Your task to perform on an android device: visit the assistant section in the google photos Image 0: 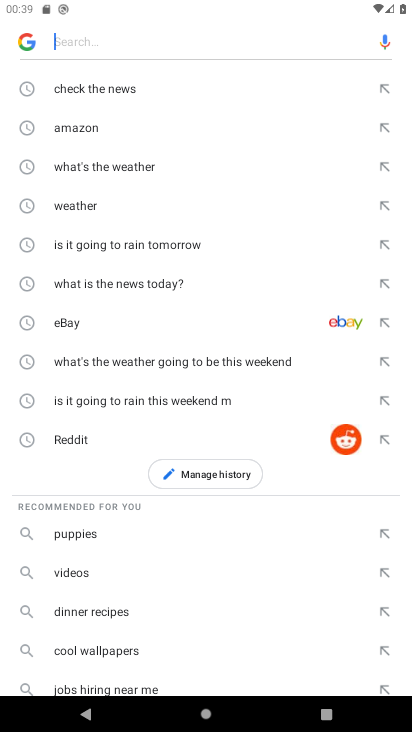
Step 0: press home button
Your task to perform on an android device: visit the assistant section in the google photos Image 1: 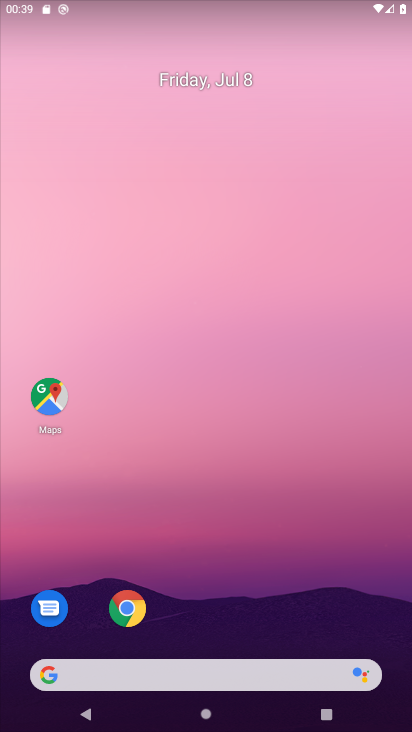
Step 1: drag from (193, 643) to (218, 532)
Your task to perform on an android device: visit the assistant section in the google photos Image 2: 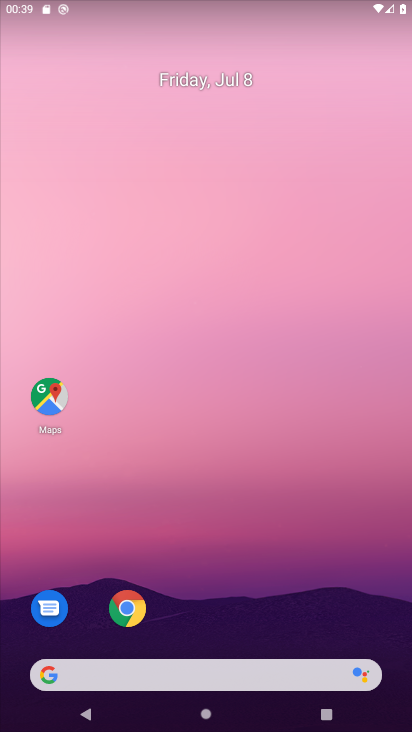
Step 2: drag from (168, 646) to (172, 483)
Your task to perform on an android device: visit the assistant section in the google photos Image 3: 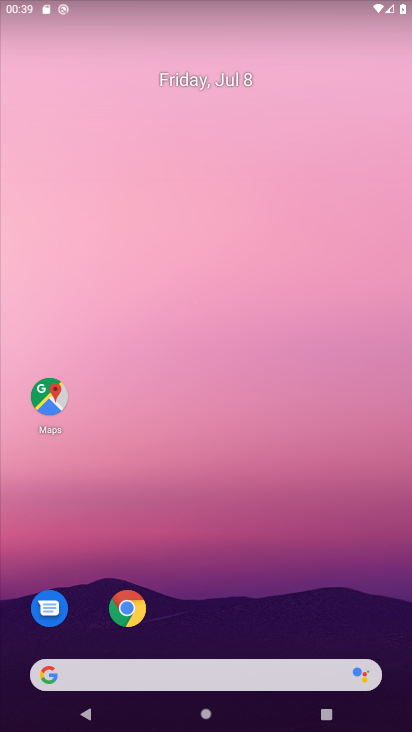
Step 3: drag from (231, 532) to (255, 203)
Your task to perform on an android device: visit the assistant section in the google photos Image 4: 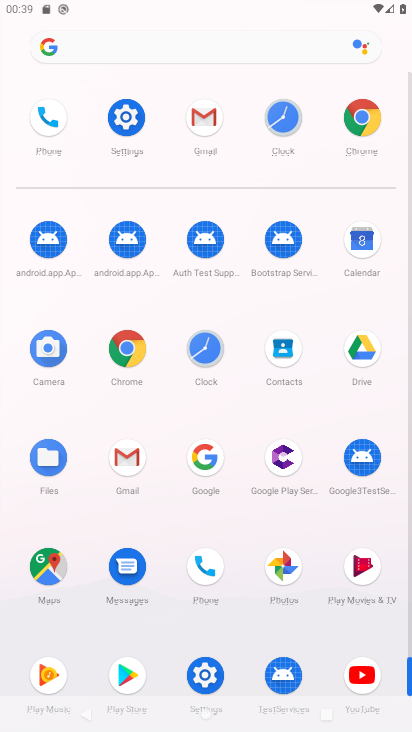
Step 4: click (286, 570)
Your task to perform on an android device: visit the assistant section in the google photos Image 5: 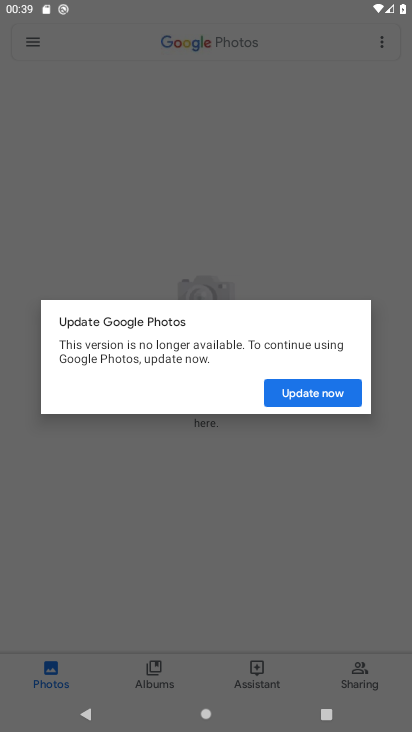
Step 5: click (304, 396)
Your task to perform on an android device: visit the assistant section in the google photos Image 6: 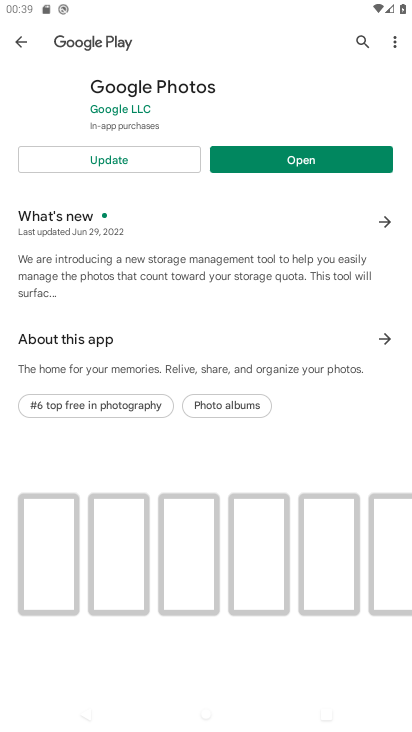
Step 6: press home button
Your task to perform on an android device: visit the assistant section in the google photos Image 7: 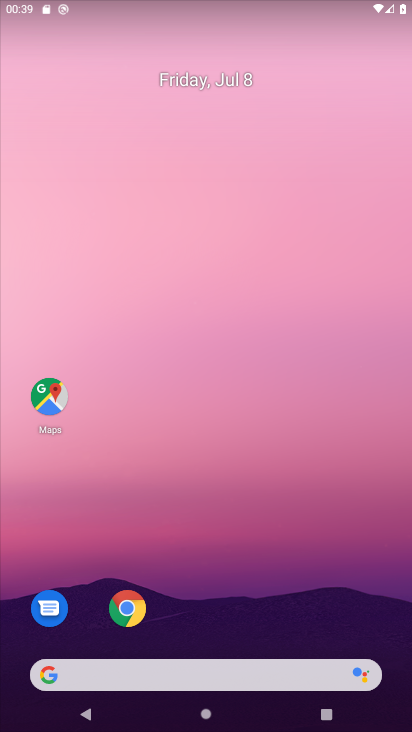
Step 7: click (221, 638)
Your task to perform on an android device: visit the assistant section in the google photos Image 8: 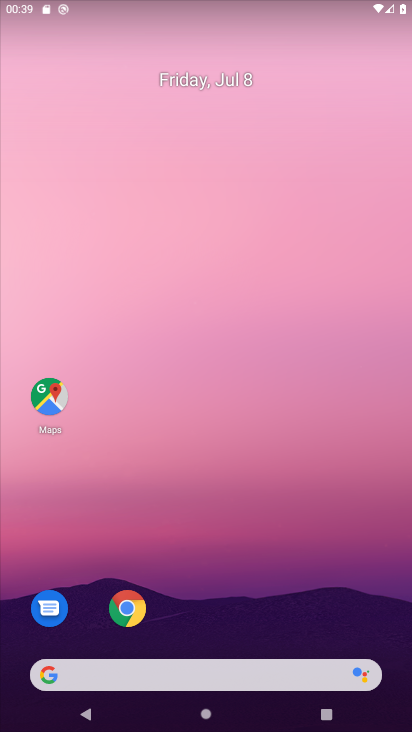
Step 8: drag from (240, 605) to (288, 299)
Your task to perform on an android device: visit the assistant section in the google photos Image 9: 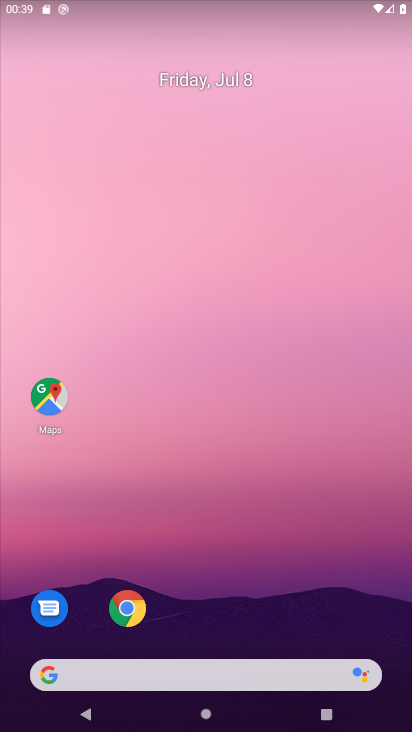
Step 9: drag from (238, 595) to (232, 112)
Your task to perform on an android device: visit the assistant section in the google photos Image 10: 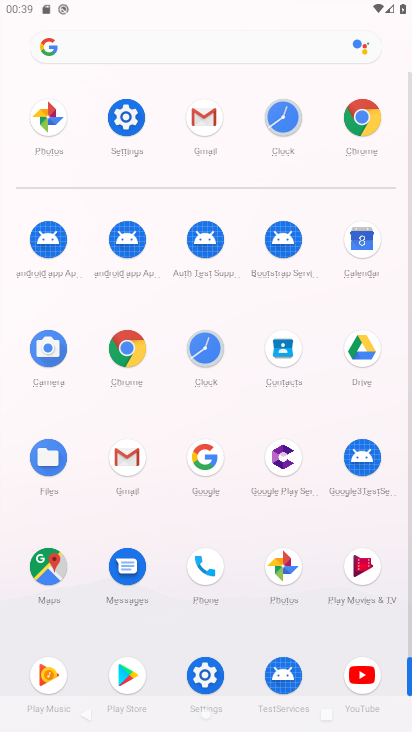
Step 10: click (272, 564)
Your task to perform on an android device: visit the assistant section in the google photos Image 11: 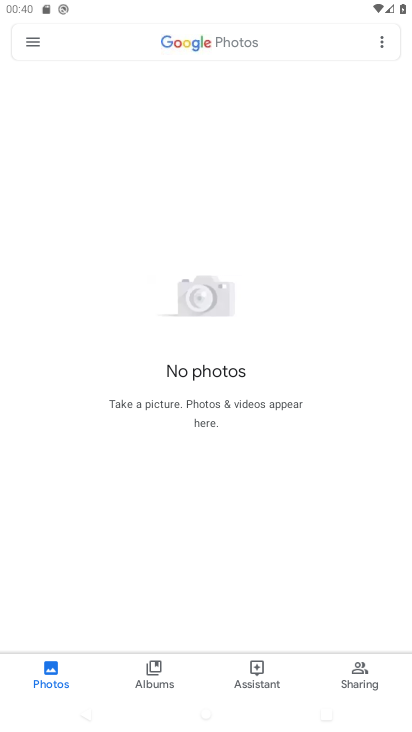
Step 11: click (256, 660)
Your task to perform on an android device: visit the assistant section in the google photos Image 12: 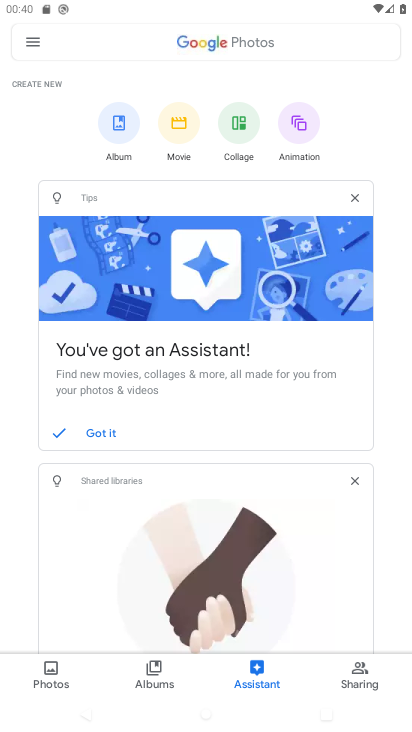
Step 12: task complete